Your task to perform on an android device: turn on airplane mode Image 0: 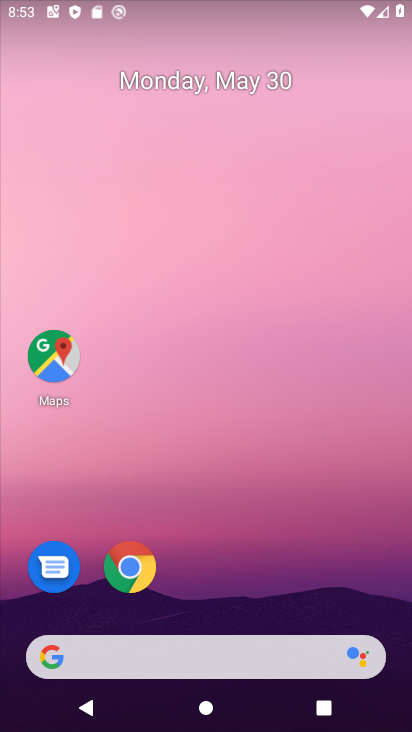
Step 0: drag from (244, 611) to (223, 322)
Your task to perform on an android device: turn on airplane mode Image 1: 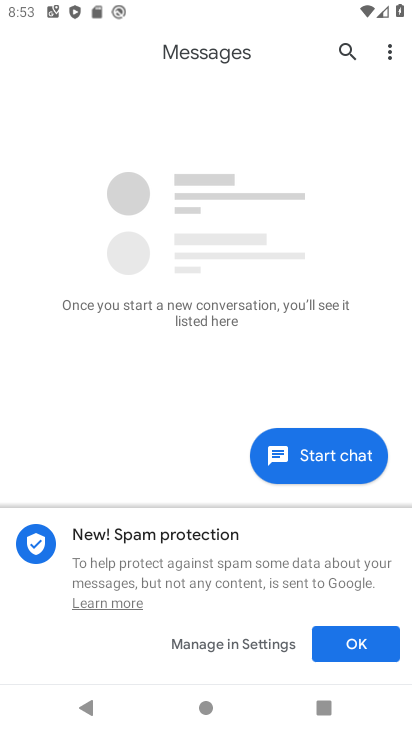
Step 1: press home button
Your task to perform on an android device: turn on airplane mode Image 2: 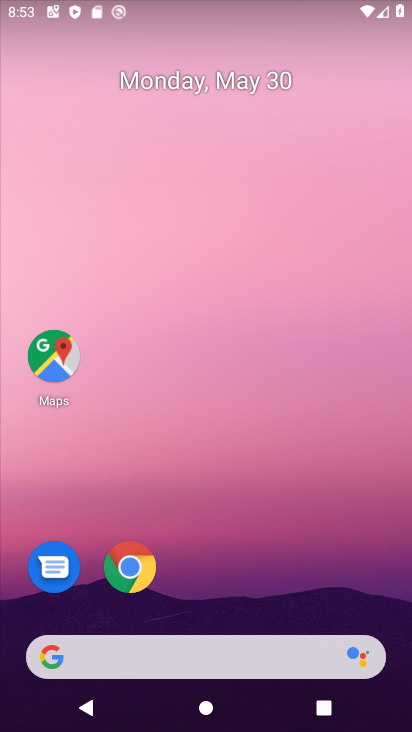
Step 2: drag from (227, 623) to (207, 191)
Your task to perform on an android device: turn on airplane mode Image 3: 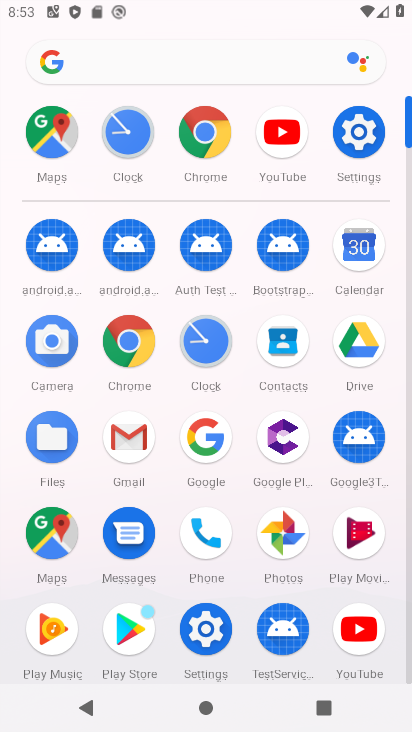
Step 3: click (372, 142)
Your task to perform on an android device: turn on airplane mode Image 4: 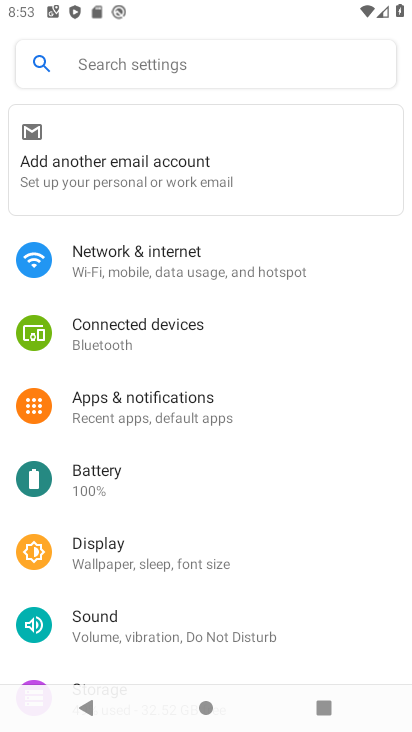
Step 4: click (271, 271)
Your task to perform on an android device: turn on airplane mode Image 5: 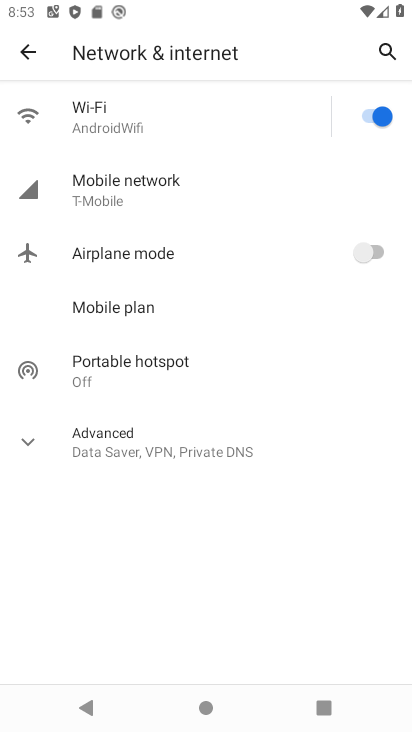
Step 5: click (344, 260)
Your task to perform on an android device: turn on airplane mode Image 6: 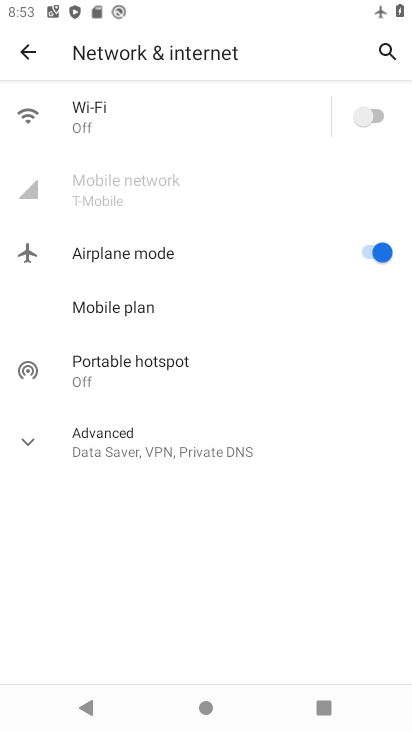
Step 6: task complete